Your task to perform on an android device: all mails in gmail Image 0: 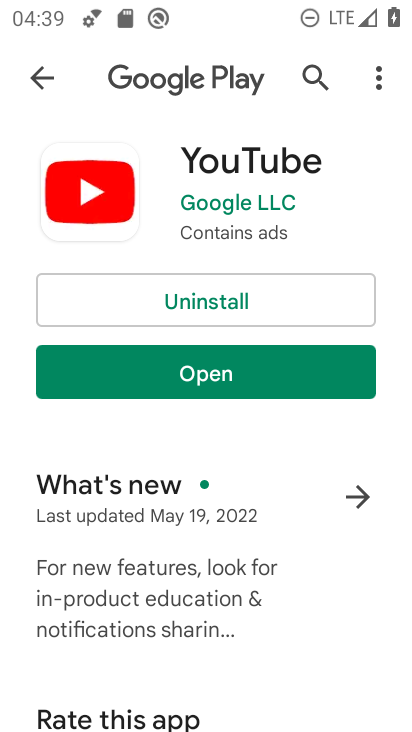
Step 0: press home button
Your task to perform on an android device: all mails in gmail Image 1: 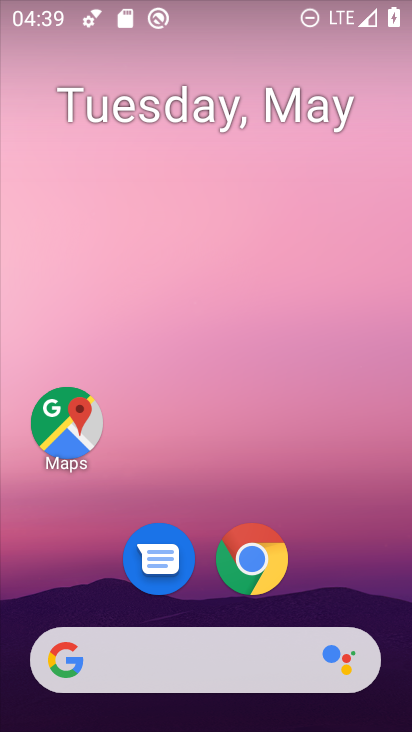
Step 1: drag from (248, 283) to (248, 187)
Your task to perform on an android device: all mails in gmail Image 2: 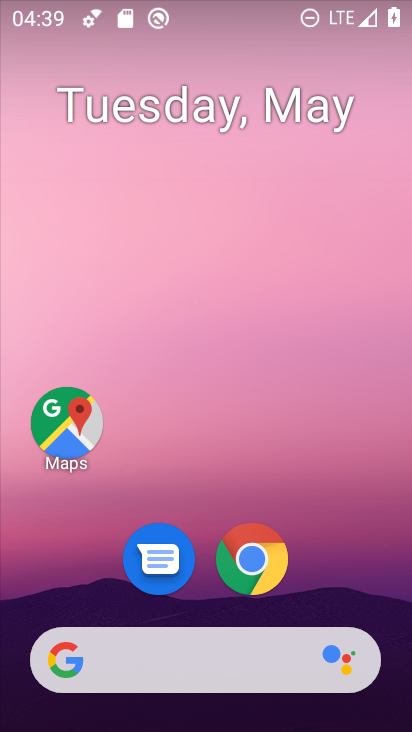
Step 2: drag from (242, 709) to (226, 189)
Your task to perform on an android device: all mails in gmail Image 3: 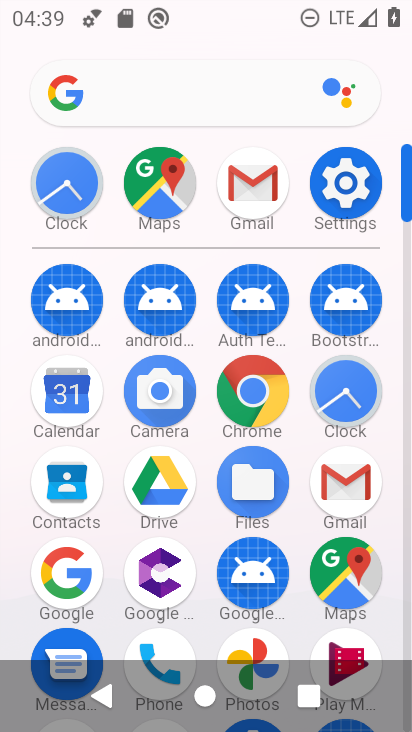
Step 3: click (341, 487)
Your task to perform on an android device: all mails in gmail Image 4: 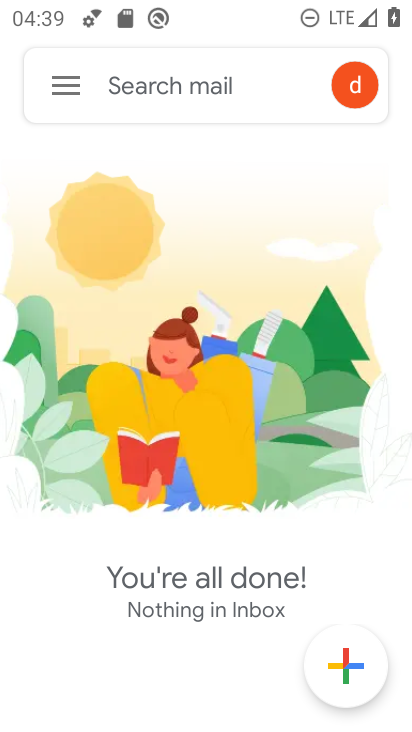
Step 4: click (64, 87)
Your task to perform on an android device: all mails in gmail Image 5: 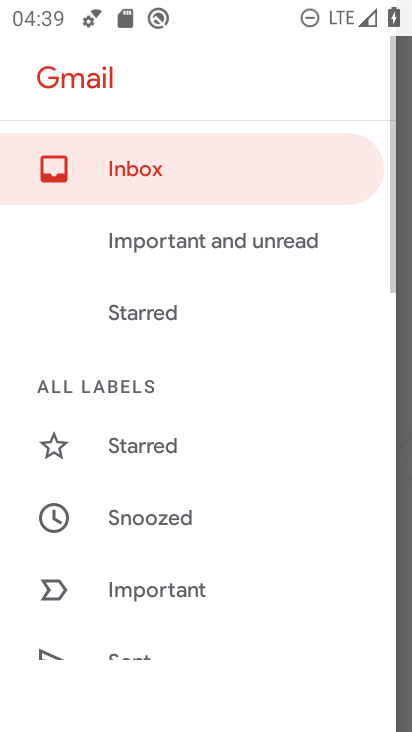
Step 5: drag from (207, 638) to (191, 288)
Your task to perform on an android device: all mails in gmail Image 6: 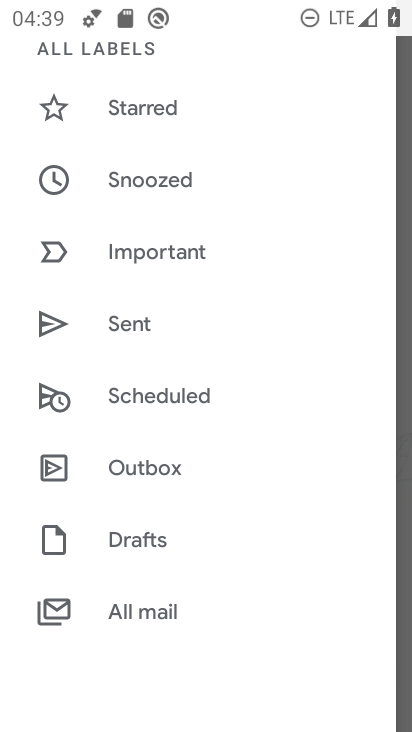
Step 6: click (139, 608)
Your task to perform on an android device: all mails in gmail Image 7: 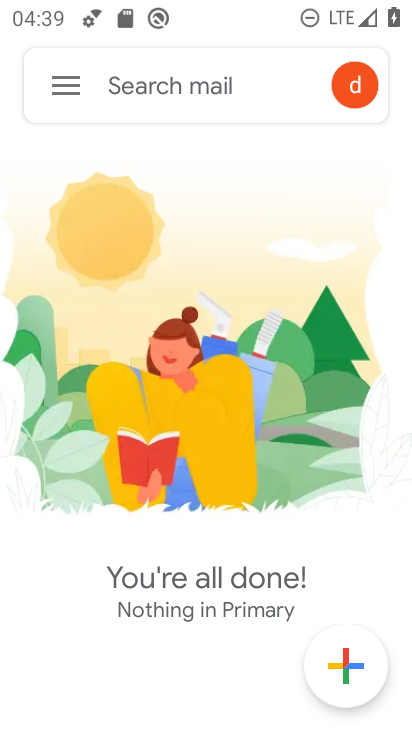
Step 7: task complete